Your task to perform on an android device: turn off translation in the chrome app Image 0: 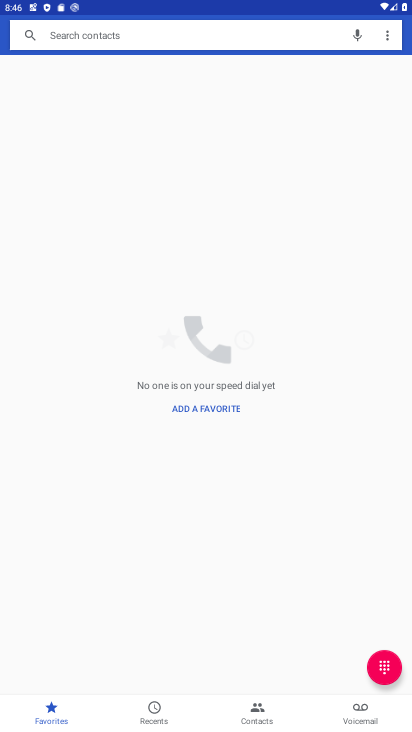
Step 0: press home button
Your task to perform on an android device: turn off translation in the chrome app Image 1: 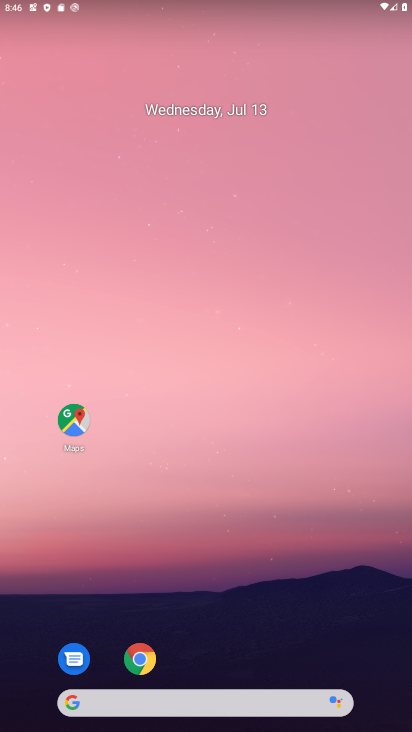
Step 1: click (139, 675)
Your task to perform on an android device: turn off translation in the chrome app Image 2: 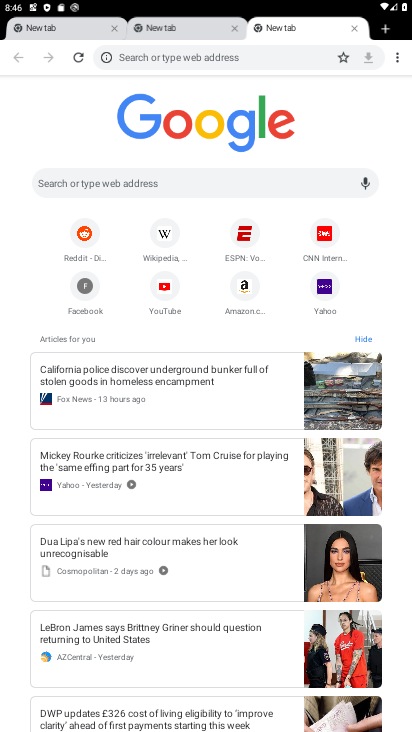
Step 2: click (399, 57)
Your task to perform on an android device: turn off translation in the chrome app Image 3: 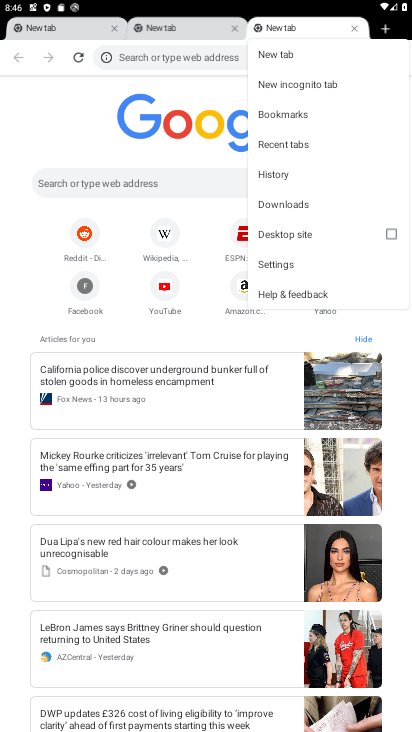
Step 3: click (299, 269)
Your task to perform on an android device: turn off translation in the chrome app Image 4: 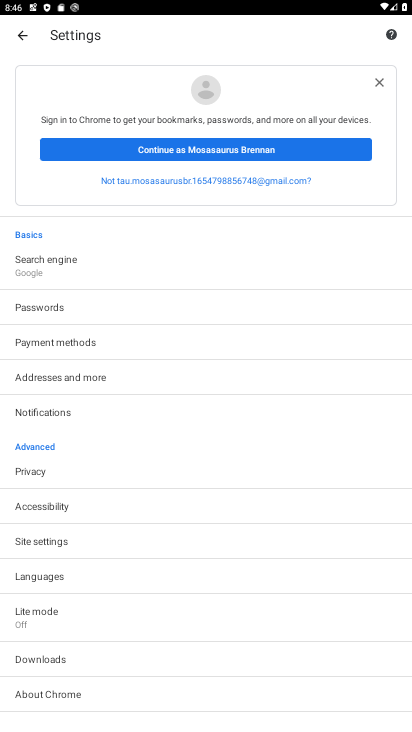
Step 4: click (49, 590)
Your task to perform on an android device: turn off translation in the chrome app Image 5: 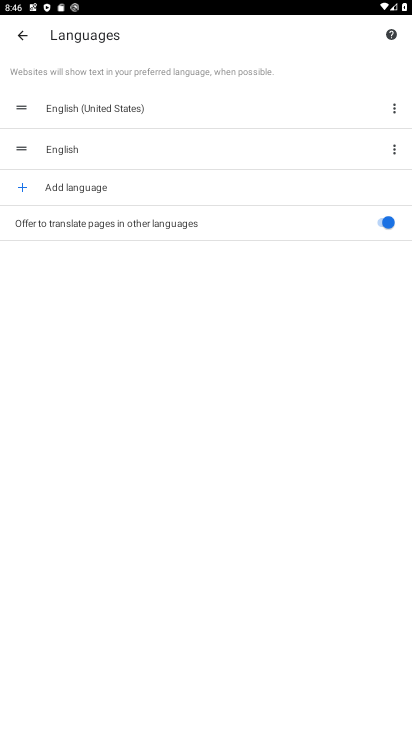
Step 5: click (393, 226)
Your task to perform on an android device: turn off translation in the chrome app Image 6: 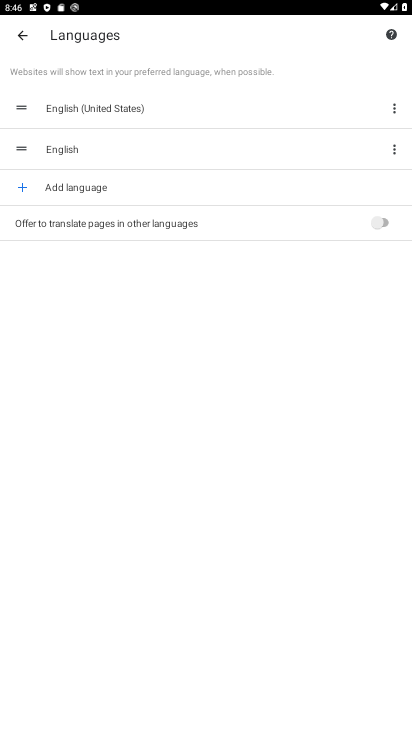
Step 6: task complete